Your task to perform on an android device: Open Amazon Image 0: 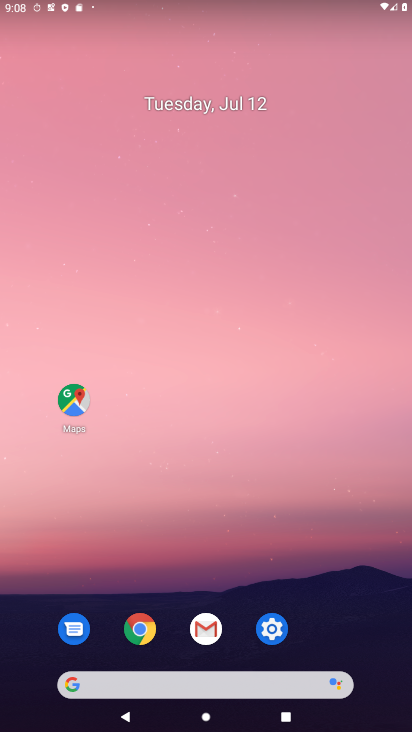
Step 0: click (142, 635)
Your task to perform on an android device: Open Amazon Image 1: 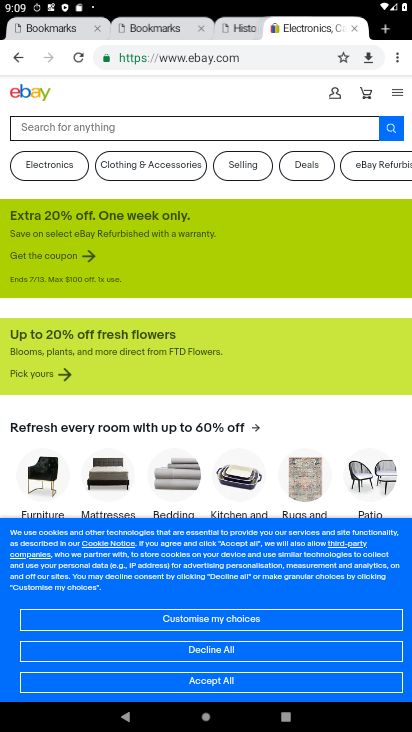
Step 1: click (393, 64)
Your task to perform on an android device: Open Amazon Image 2: 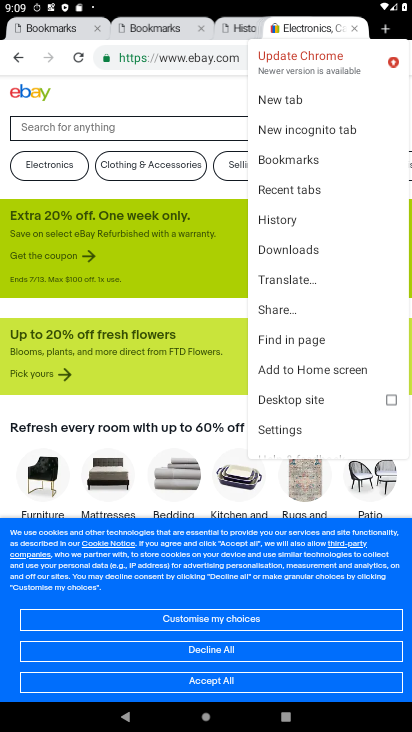
Step 2: click (273, 100)
Your task to perform on an android device: Open Amazon Image 3: 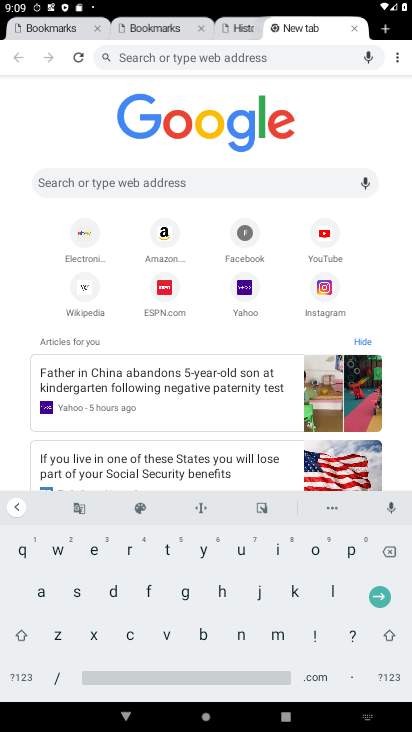
Step 3: click (155, 238)
Your task to perform on an android device: Open Amazon Image 4: 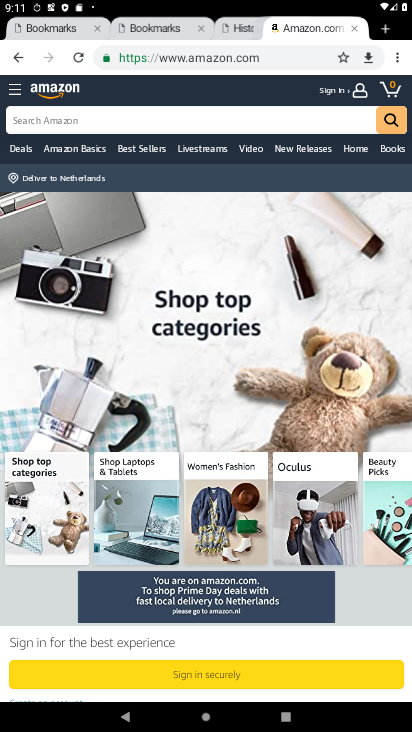
Step 4: task complete